Your task to perform on an android device: move a message to another label in the gmail app Image 0: 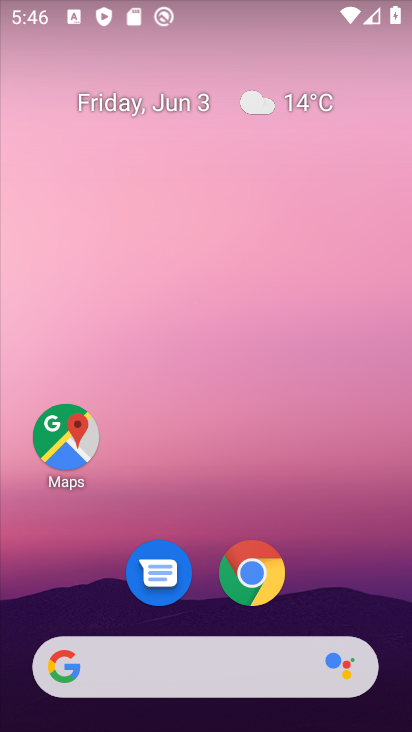
Step 0: drag from (314, 682) to (311, 22)
Your task to perform on an android device: move a message to another label in the gmail app Image 1: 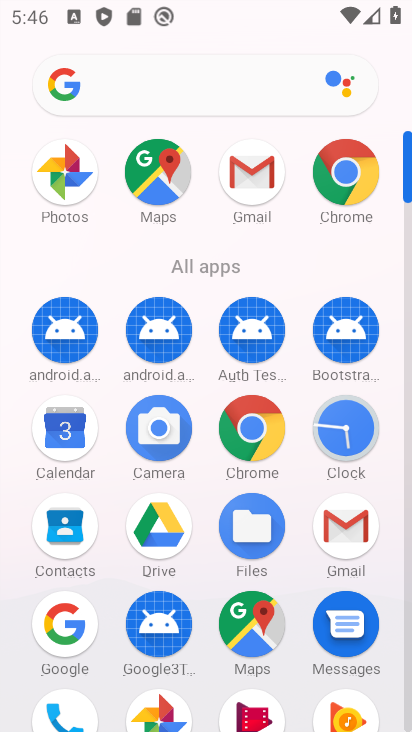
Step 1: click (270, 170)
Your task to perform on an android device: move a message to another label in the gmail app Image 2: 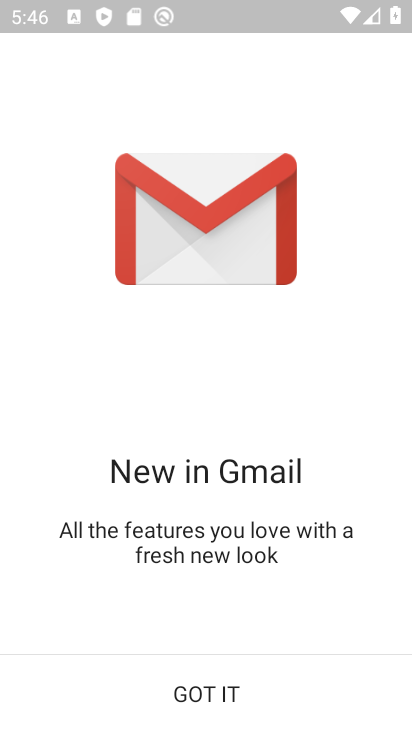
Step 2: click (201, 687)
Your task to perform on an android device: move a message to another label in the gmail app Image 3: 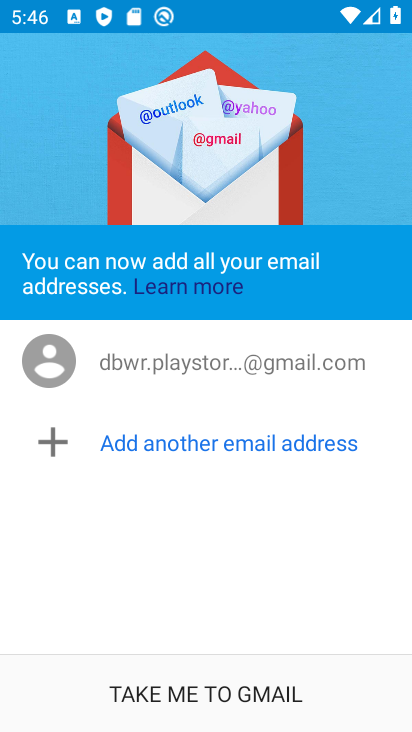
Step 3: click (201, 687)
Your task to perform on an android device: move a message to another label in the gmail app Image 4: 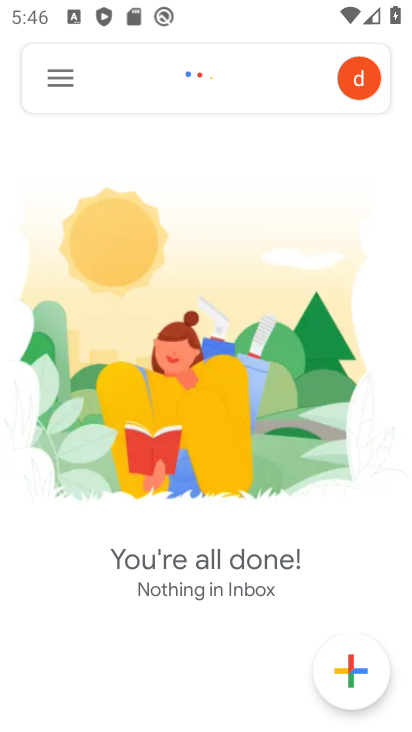
Step 4: click (47, 77)
Your task to perform on an android device: move a message to another label in the gmail app Image 5: 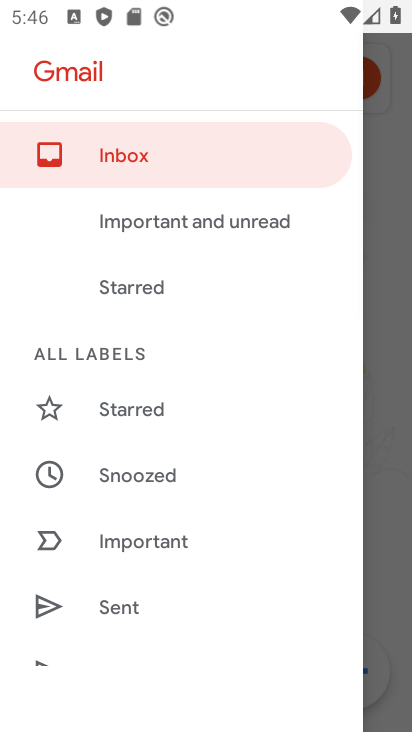
Step 5: click (145, 460)
Your task to perform on an android device: move a message to another label in the gmail app Image 6: 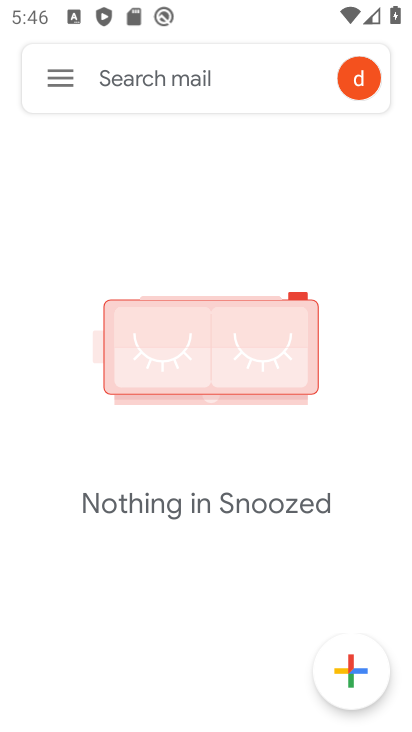
Step 6: task complete